Your task to perform on an android device: change alarm snooze length Image 0: 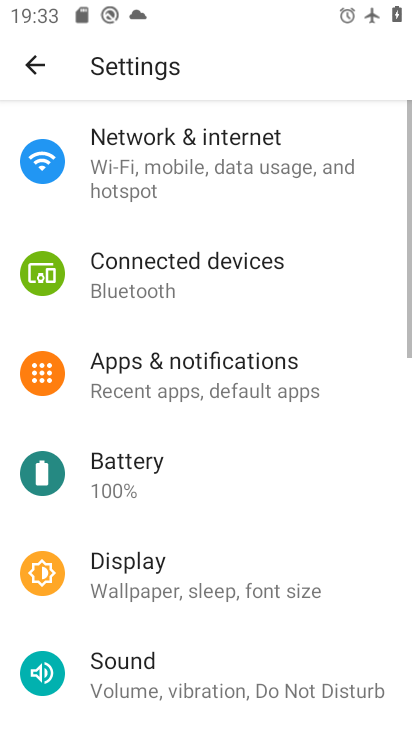
Step 0: press home button
Your task to perform on an android device: change alarm snooze length Image 1: 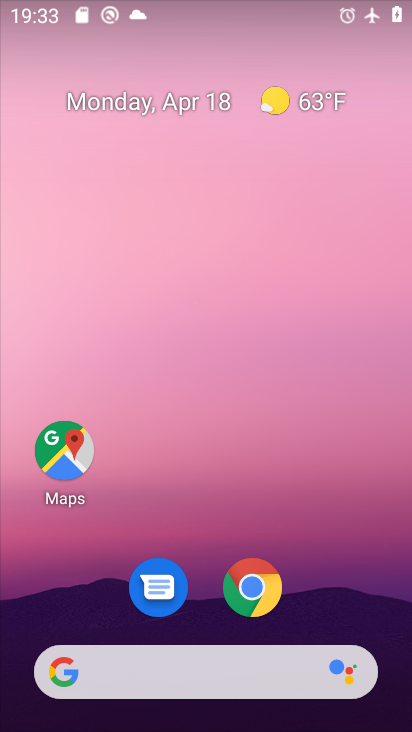
Step 1: drag from (349, 569) to (351, 227)
Your task to perform on an android device: change alarm snooze length Image 2: 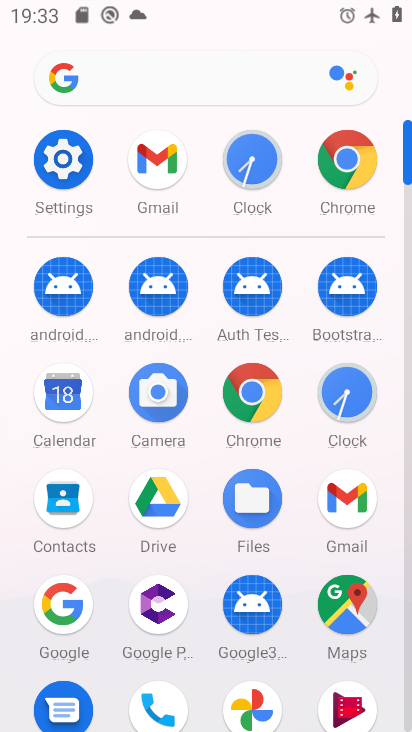
Step 2: click (240, 196)
Your task to perform on an android device: change alarm snooze length Image 3: 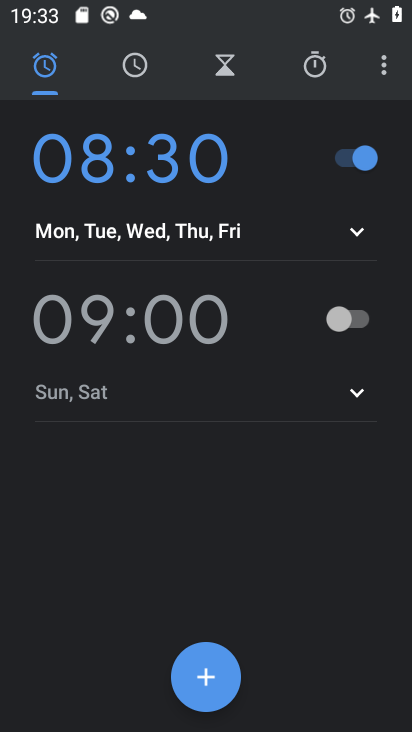
Step 3: click (386, 57)
Your task to perform on an android device: change alarm snooze length Image 4: 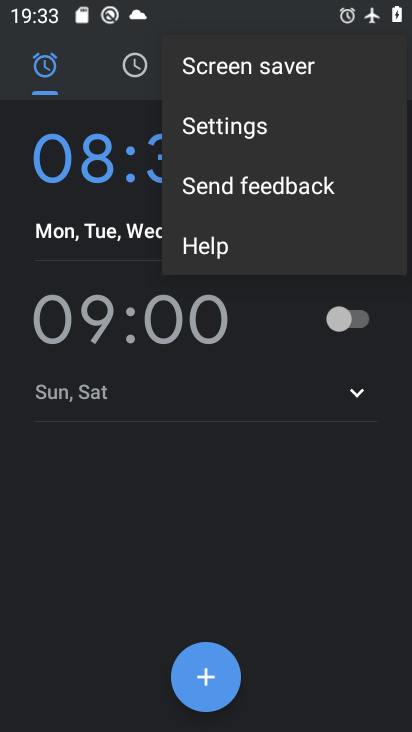
Step 4: click (347, 115)
Your task to perform on an android device: change alarm snooze length Image 5: 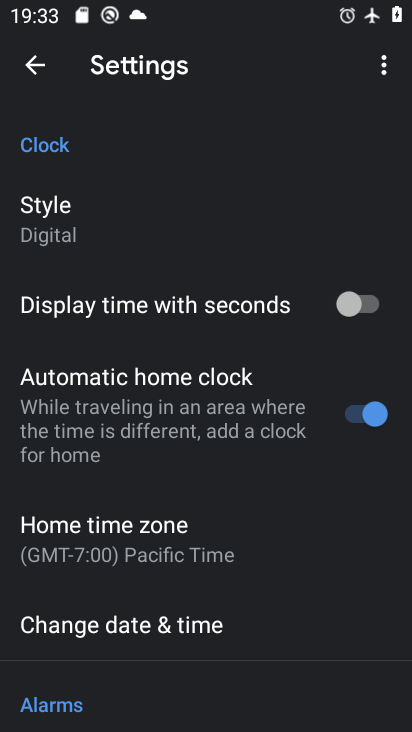
Step 5: drag from (192, 484) to (202, 261)
Your task to perform on an android device: change alarm snooze length Image 6: 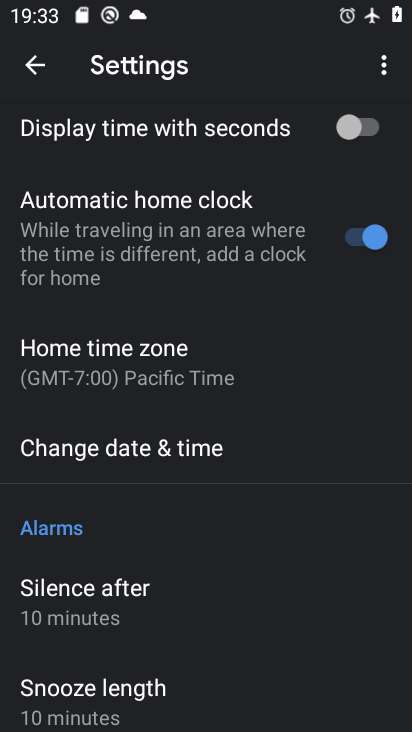
Step 6: drag from (205, 524) to (227, 325)
Your task to perform on an android device: change alarm snooze length Image 7: 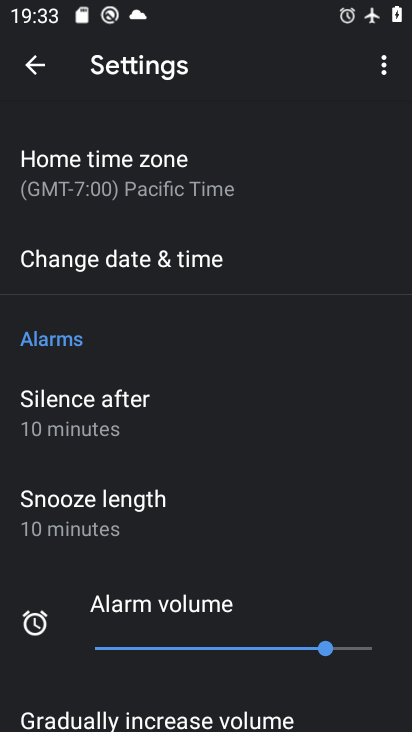
Step 7: click (188, 504)
Your task to perform on an android device: change alarm snooze length Image 8: 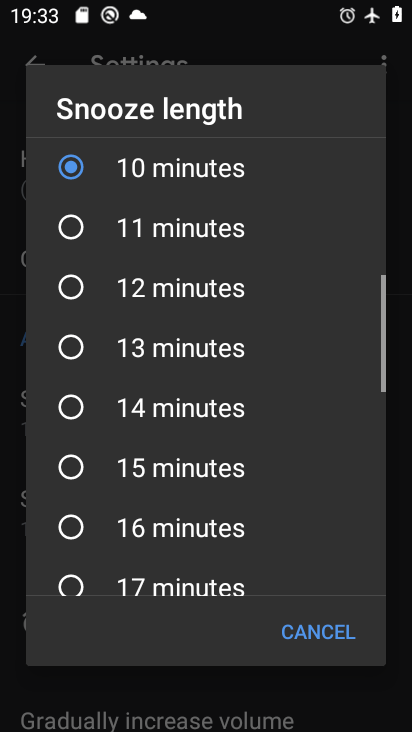
Step 8: drag from (188, 256) to (195, 454)
Your task to perform on an android device: change alarm snooze length Image 9: 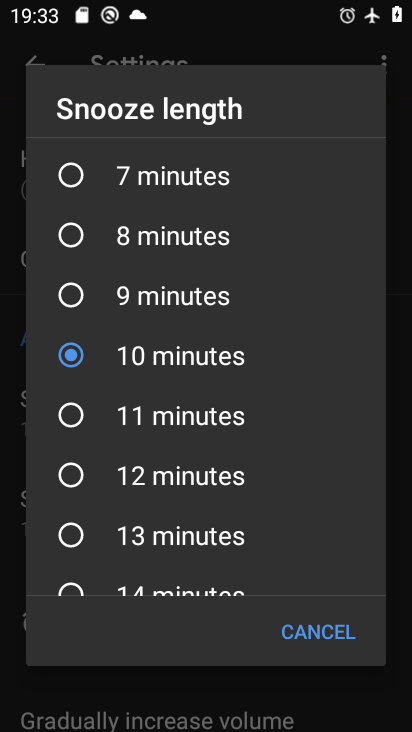
Step 9: drag from (200, 232) to (212, 444)
Your task to perform on an android device: change alarm snooze length Image 10: 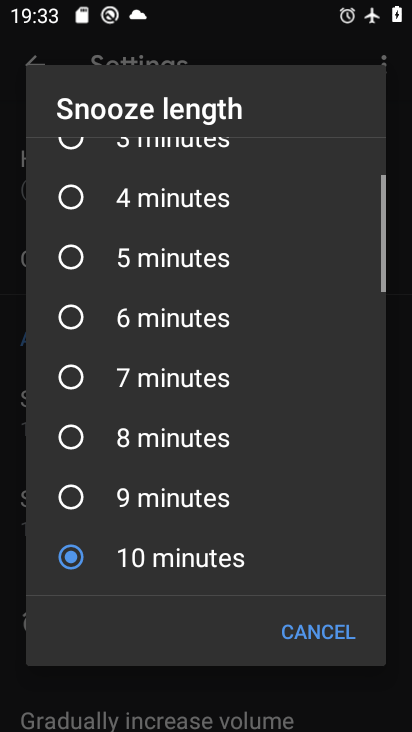
Step 10: drag from (231, 208) to (249, 385)
Your task to perform on an android device: change alarm snooze length Image 11: 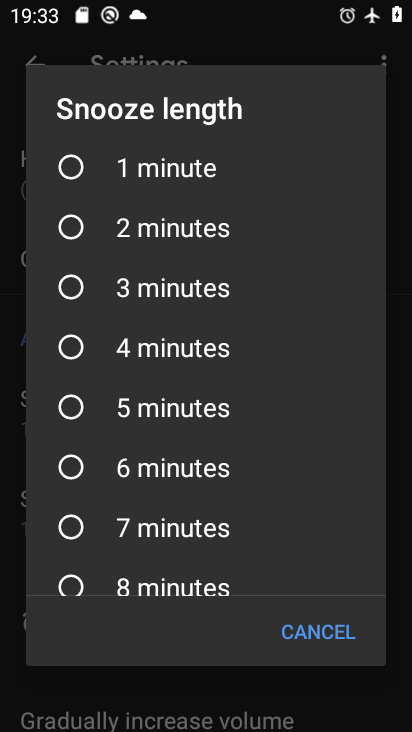
Step 11: drag from (343, 183) to (340, 633)
Your task to perform on an android device: change alarm snooze length Image 12: 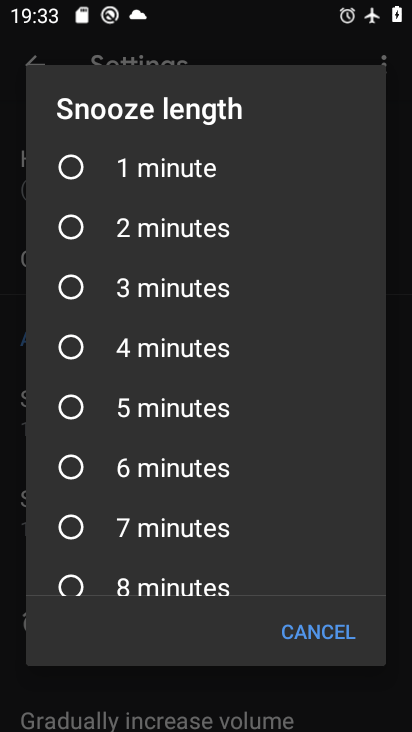
Step 12: click (236, 178)
Your task to perform on an android device: change alarm snooze length Image 13: 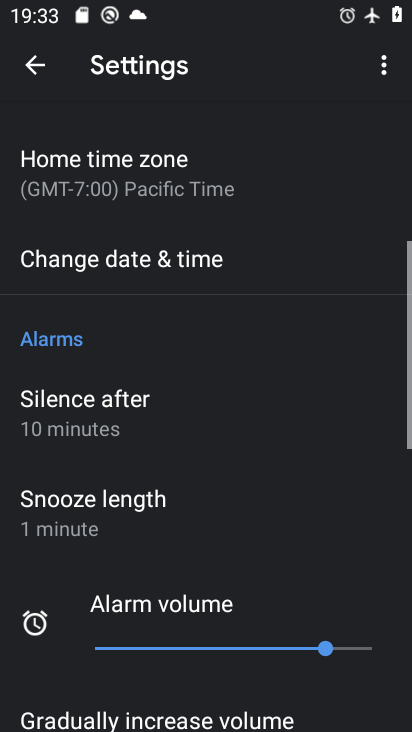
Step 13: task complete